Your task to perform on an android device: find which apps use the phone's location Image 0: 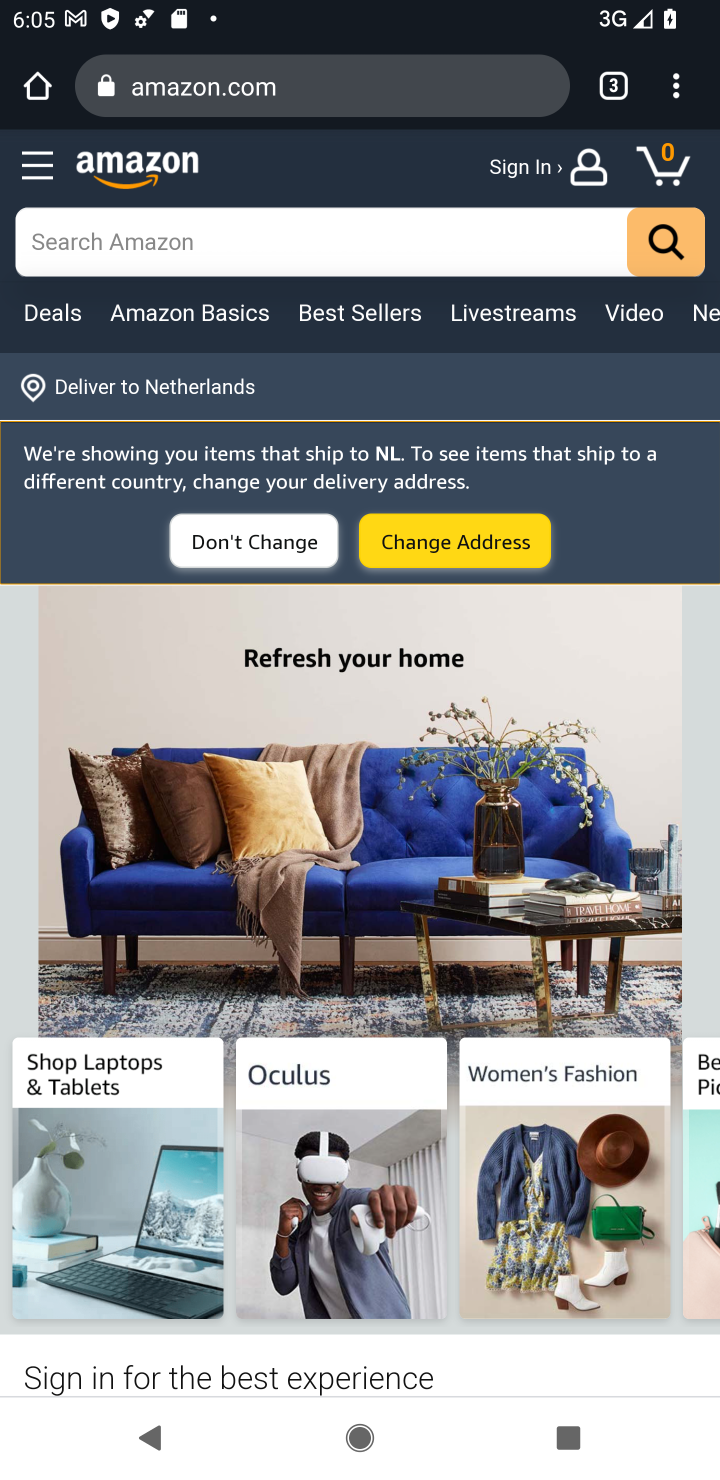
Step 0: press home button
Your task to perform on an android device: find which apps use the phone's location Image 1: 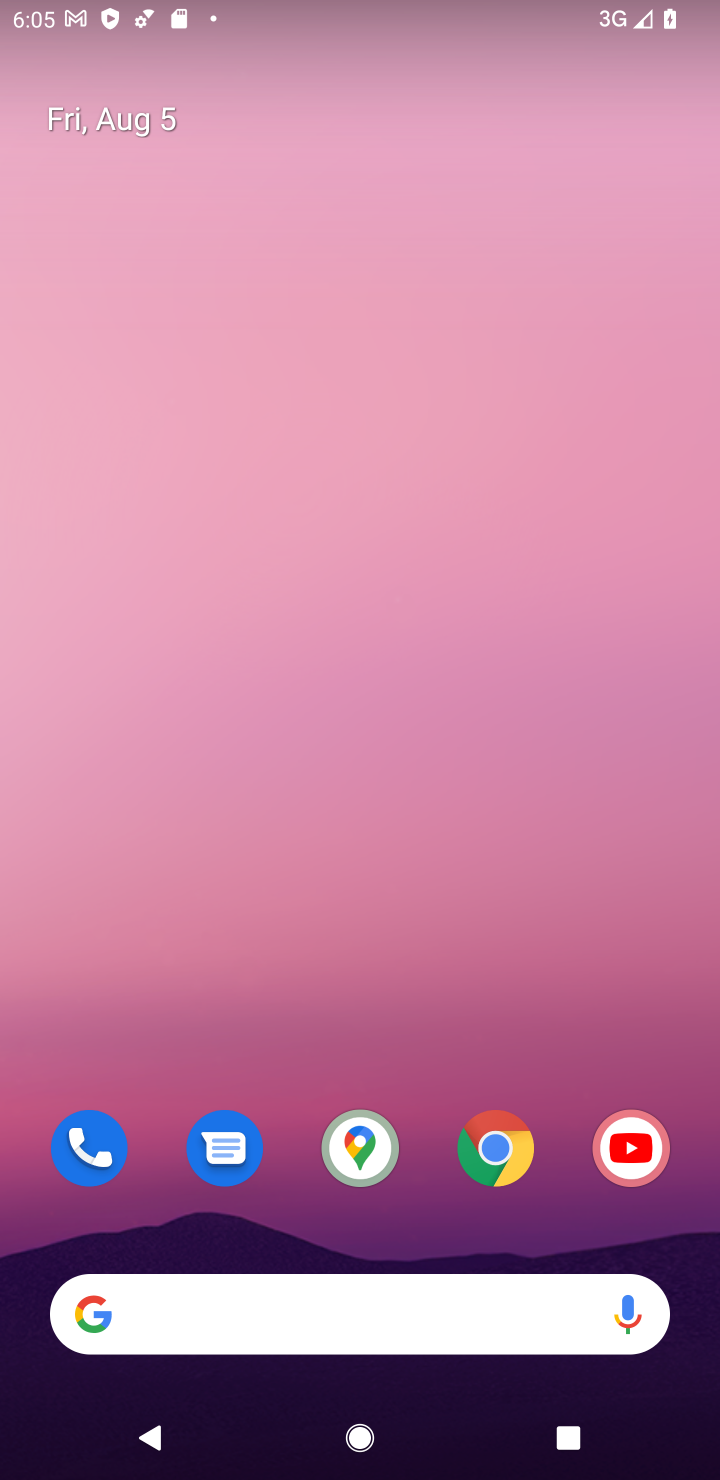
Step 1: drag from (391, 1028) to (433, 80)
Your task to perform on an android device: find which apps use the phone's location Image 2: 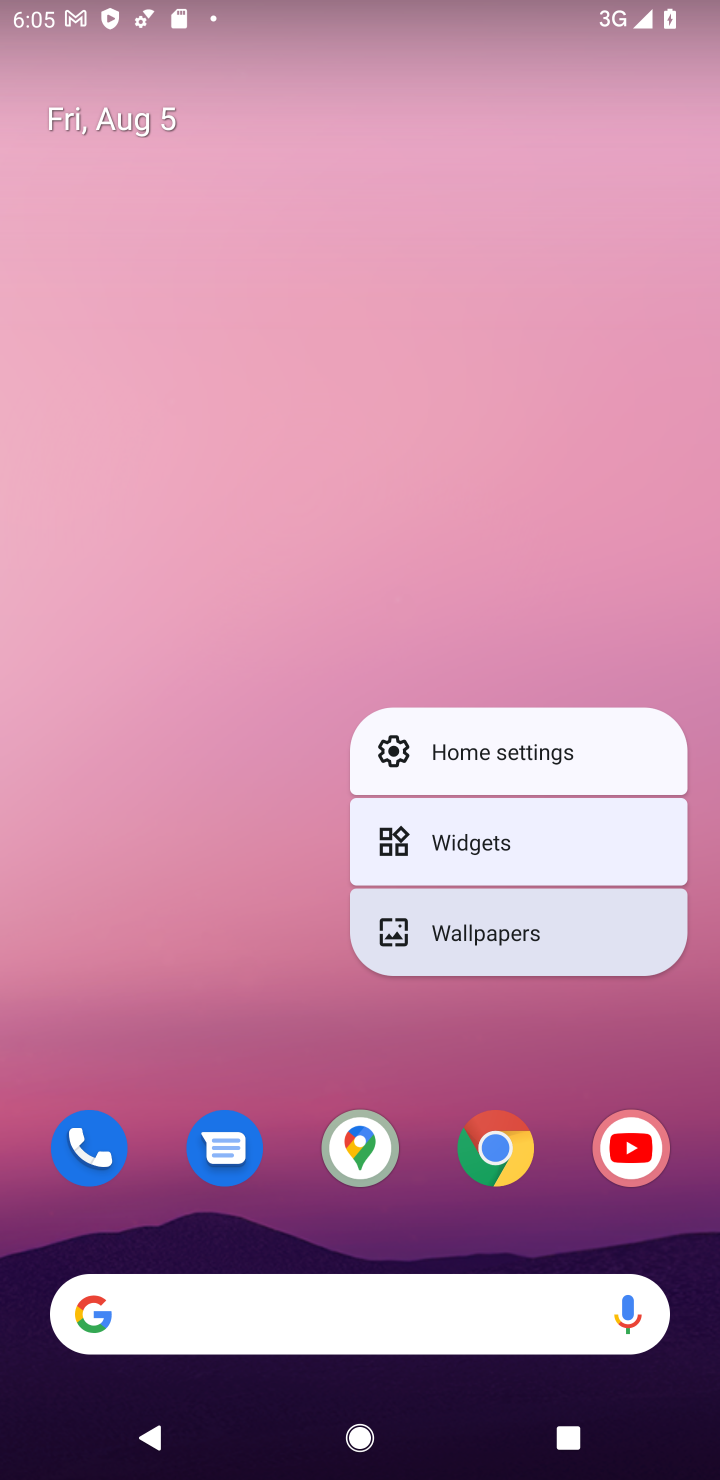
Step 2: click (238, 663)
Your task to perform on an android device: find which apps use the phone's location Image 3: 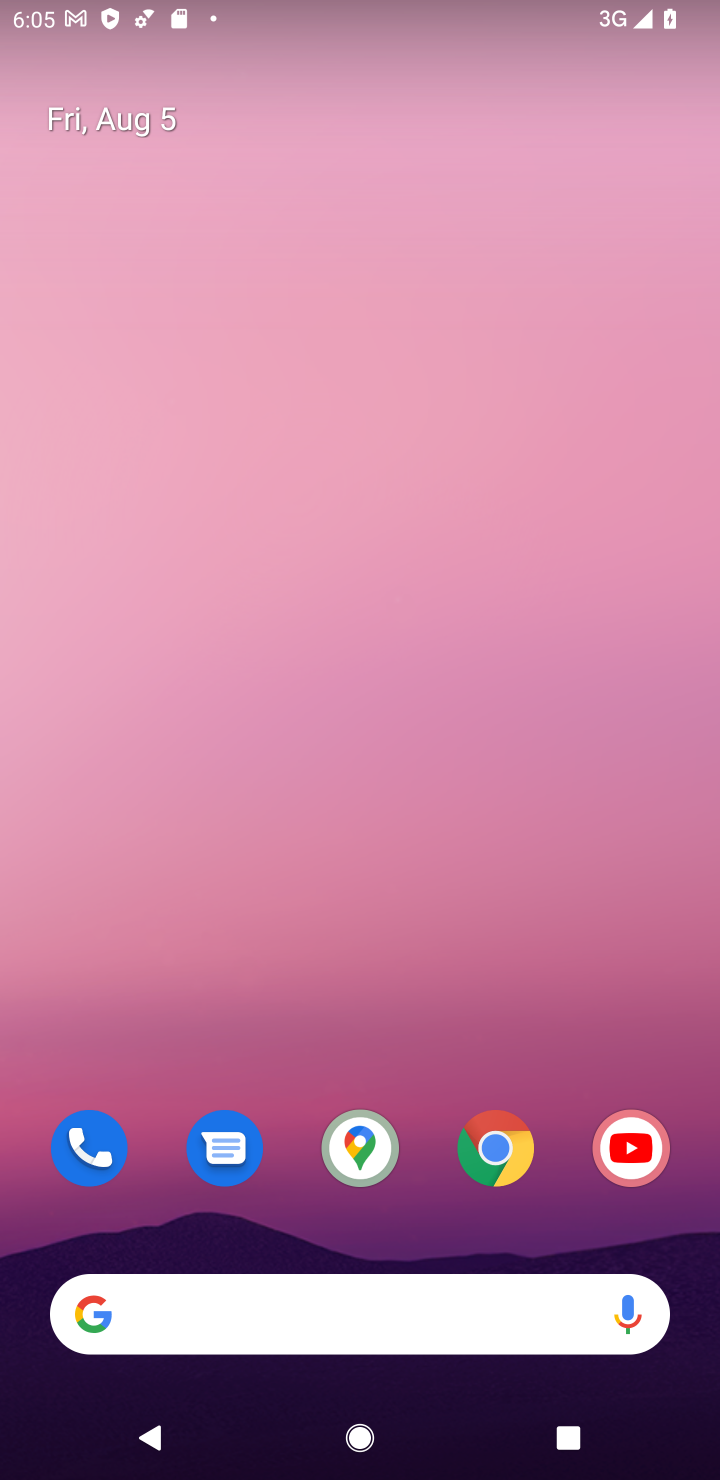
Step 3: drag from (402, 996) to (369, 53)
Your task to perform on an android device: find which apps use the phone's location Image 4: 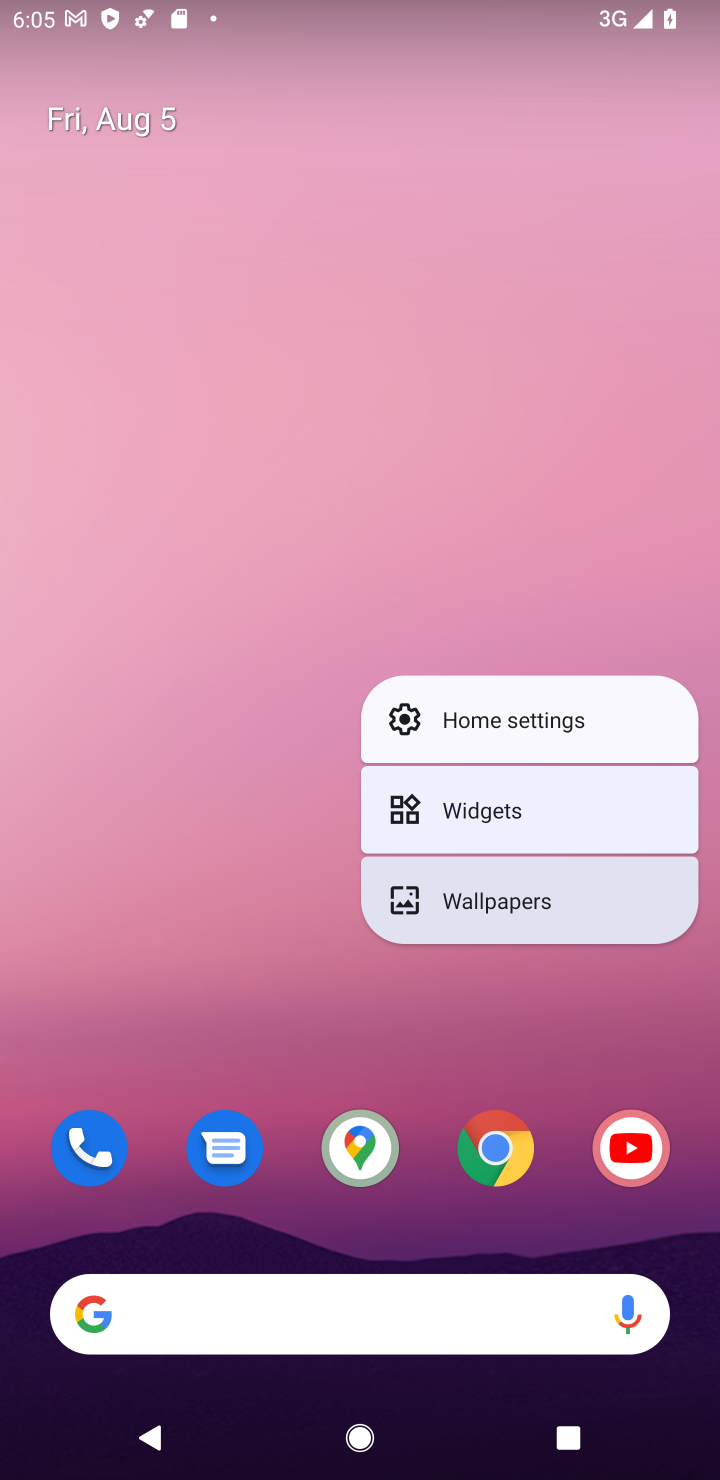
Step 4: click (106, 697)
Your task to perform on an android device: find which apps use the phone's location Image 5: 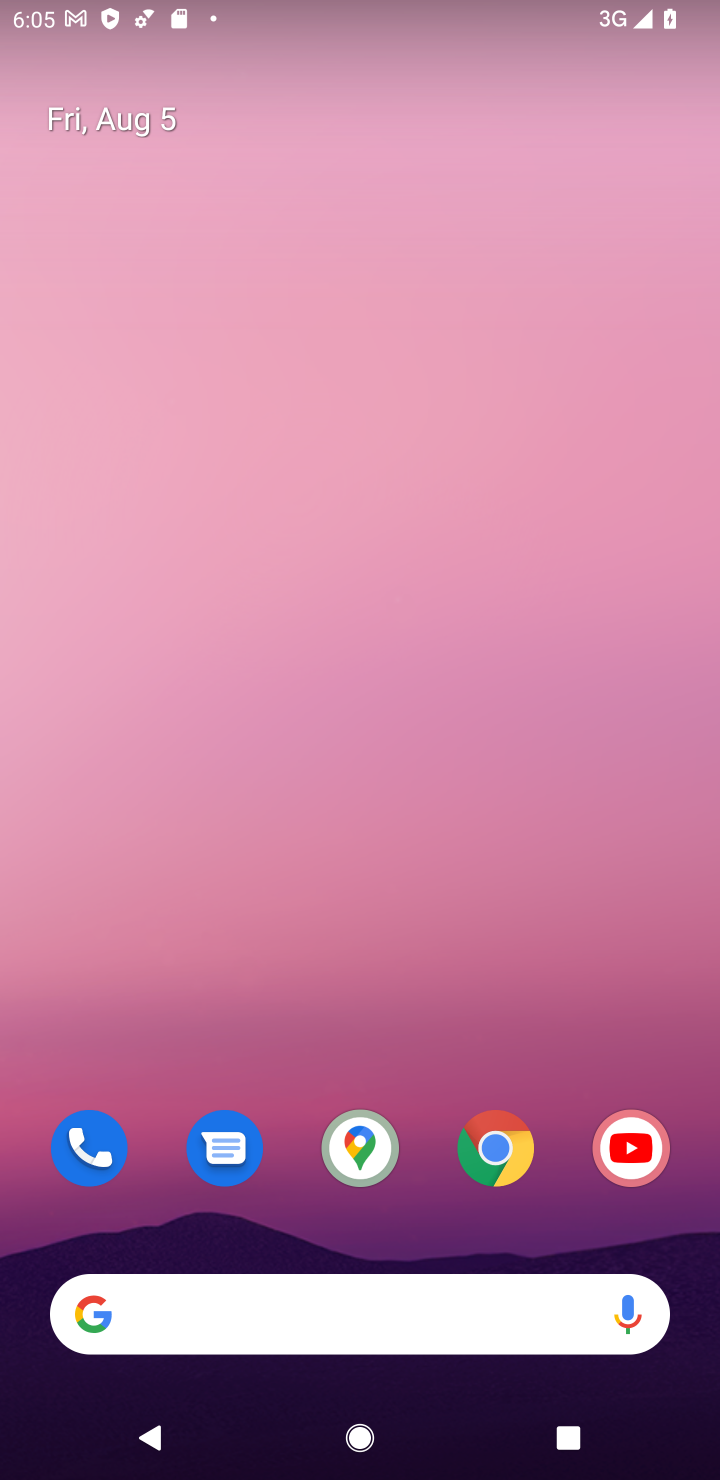
Step 5: drag from (536, 1011) to (344, 305)
Your task to perform on an android device: find which apps use the phone's location Image 6: 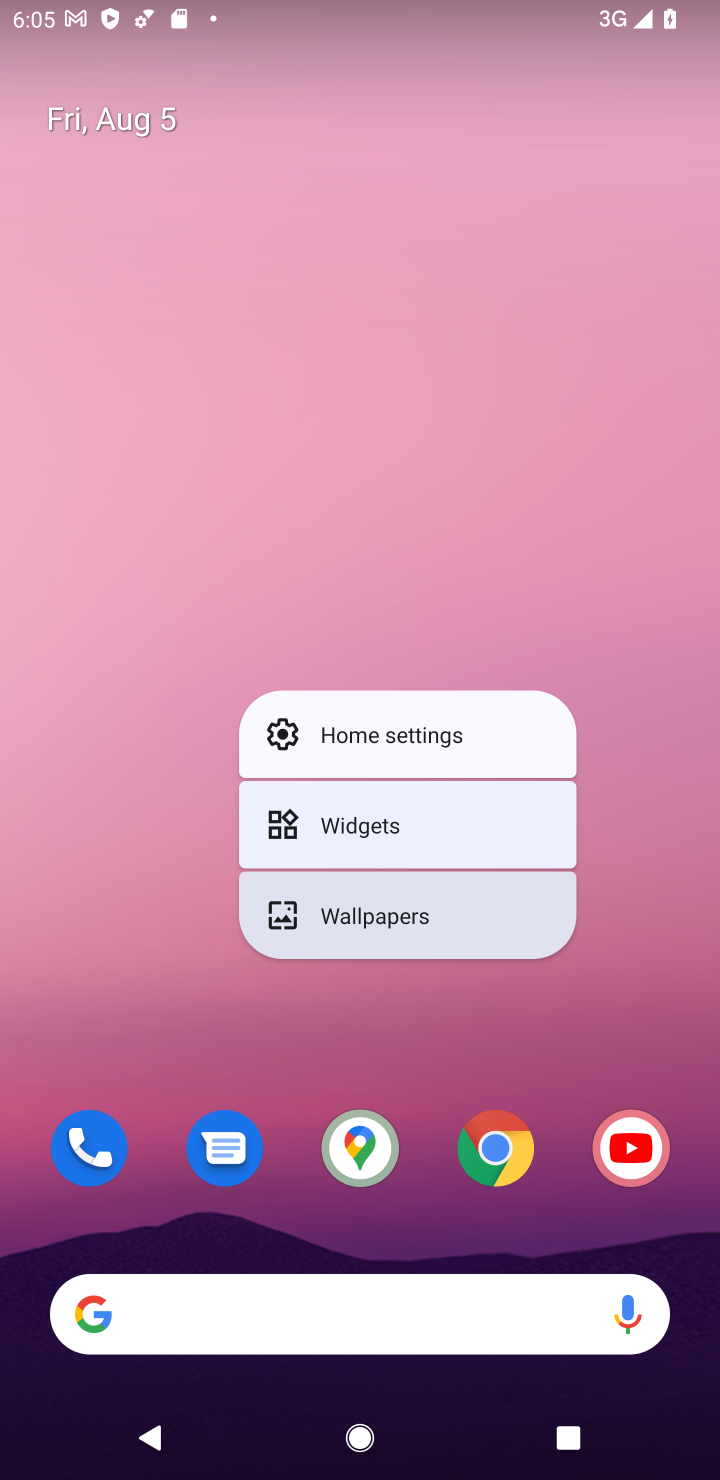
Step 6: click (344, 305)
Your task to perform on an android device: find which apps use the phone's location Image 7: 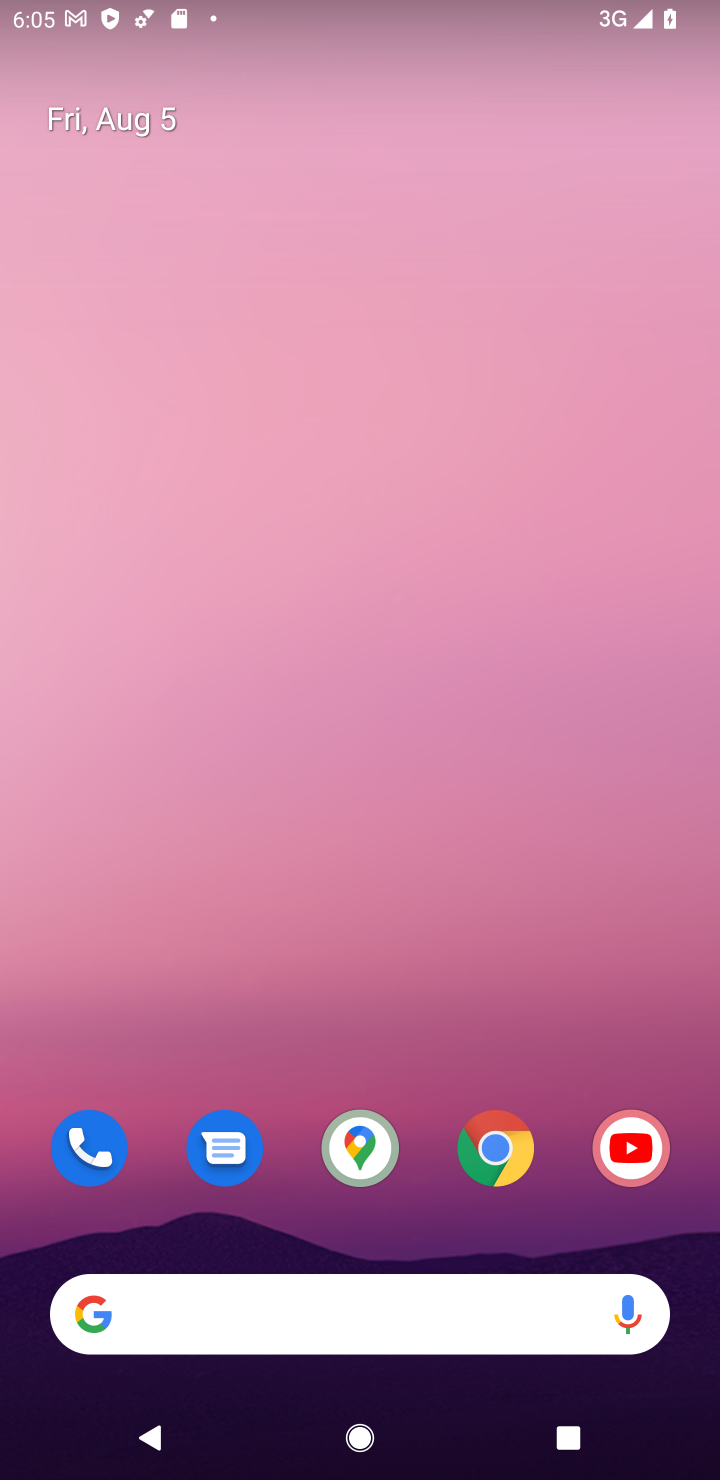
Step 7: drag from (281, 1017) to (217, 51)
Your task to perform on an android device: find which apps use the phone's location Image 8: 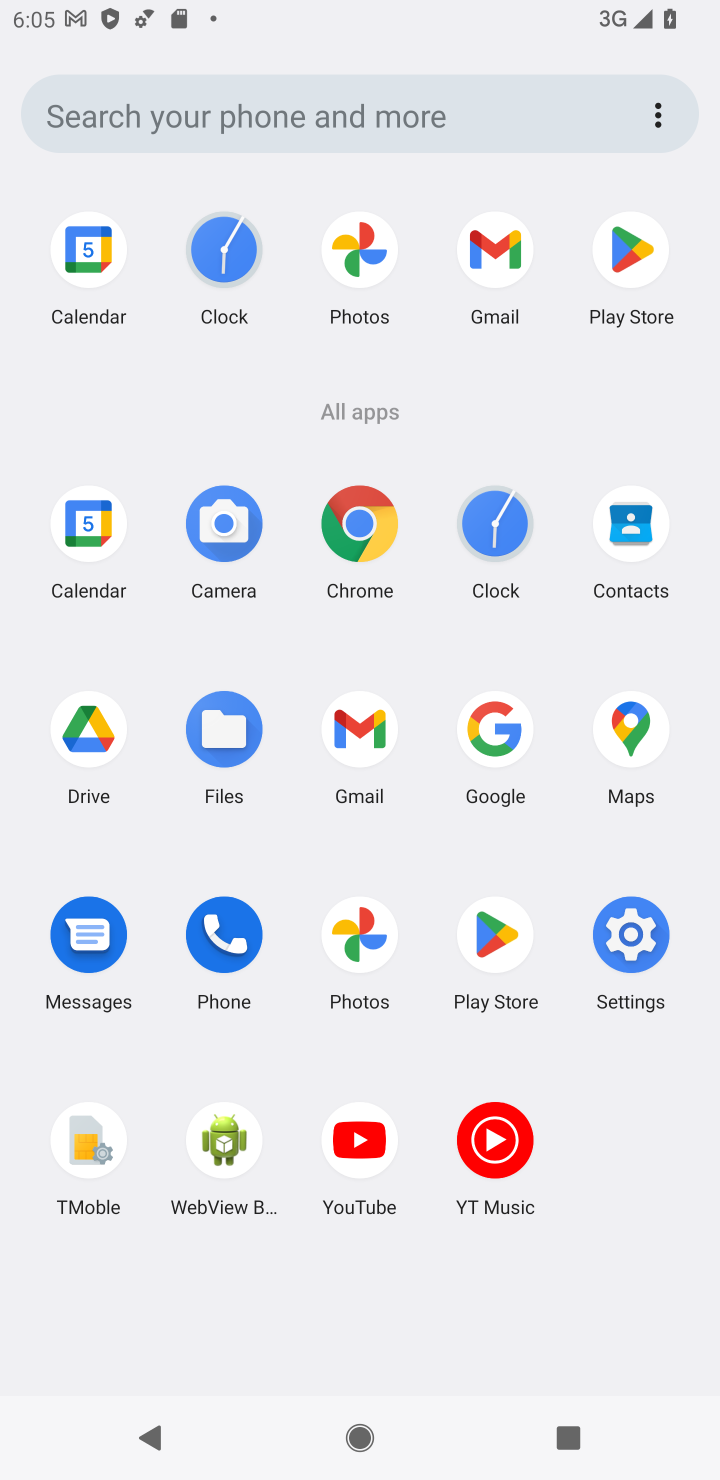
Step 8: click (635, 933)
Your task to perform on an android device: find which apps use the phone's location Image 9: 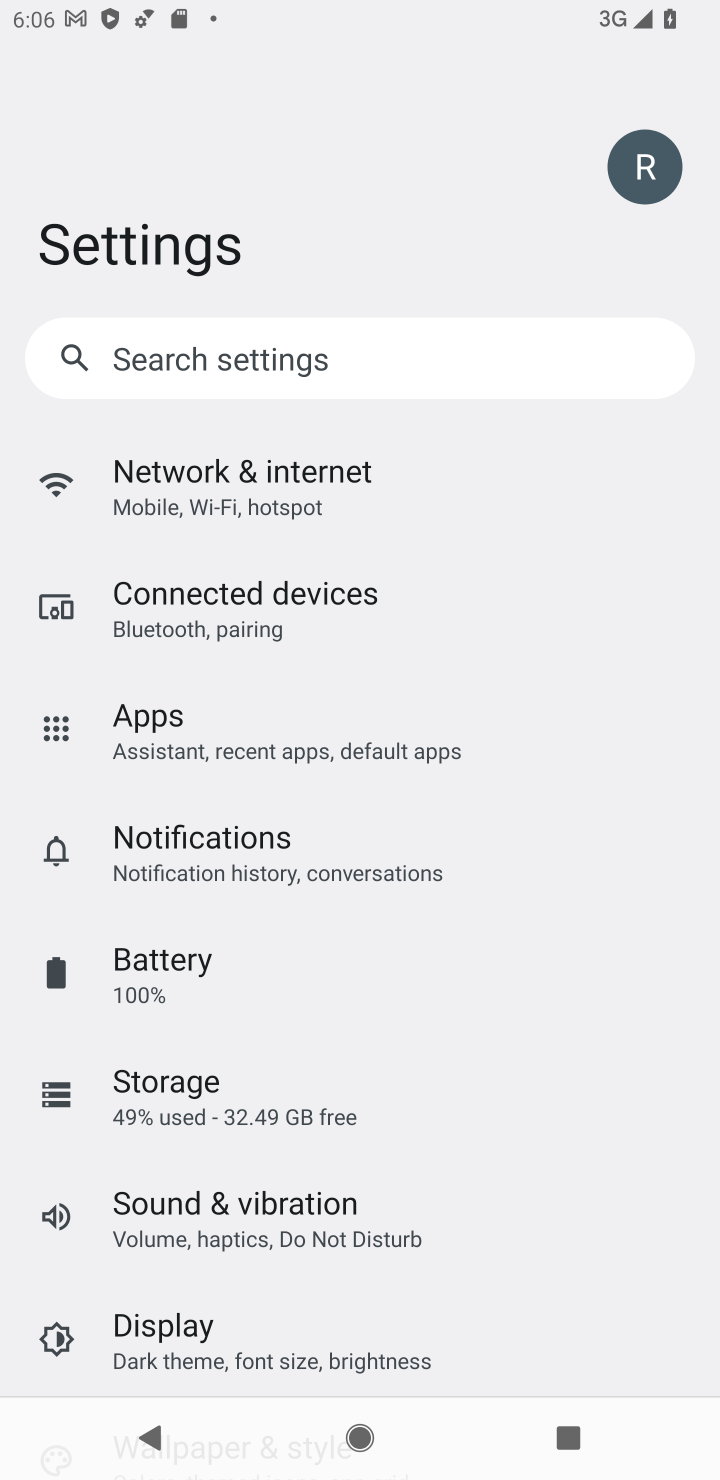
Step 9: drag from (481, 1189) to (342, 478)
Your task to perform on an android device: find which apps use the phone's location Image 10: 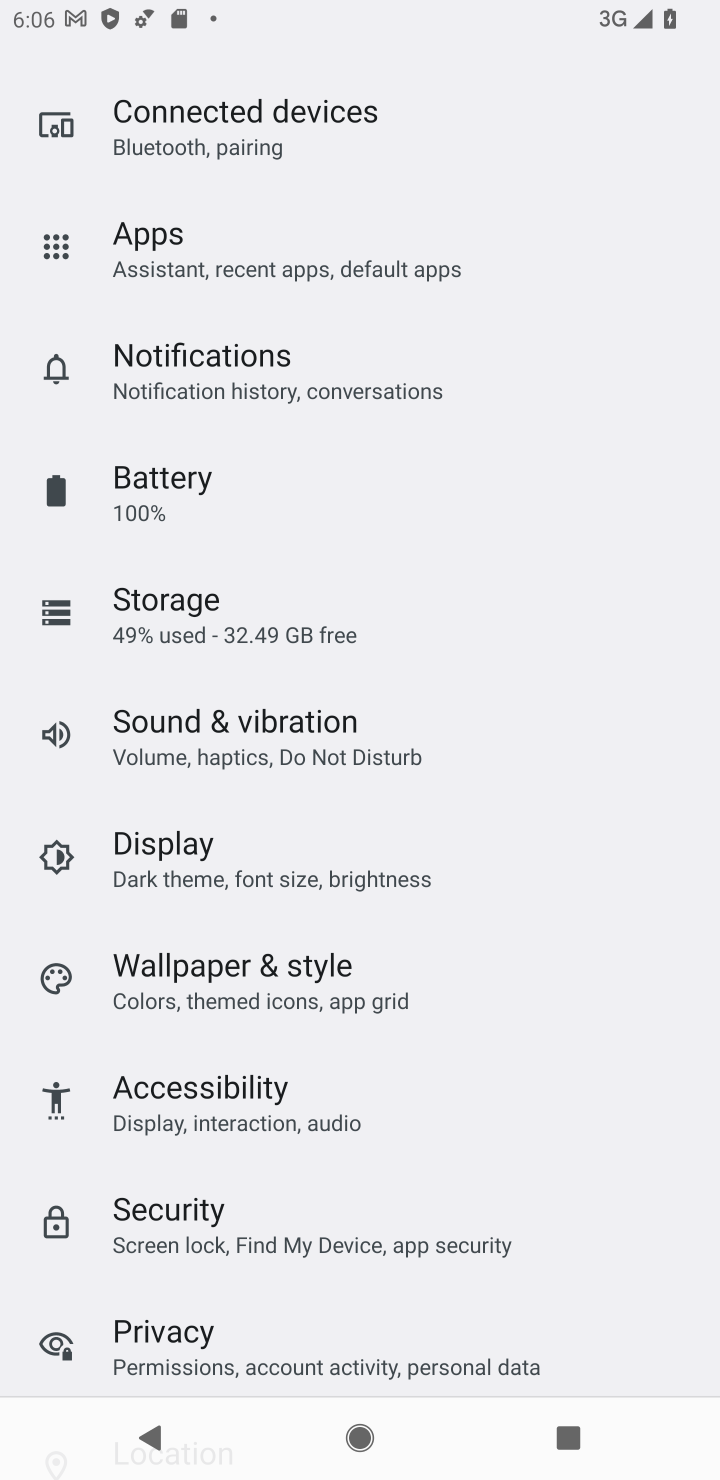
Step 10: drag from (338, 1178) to (396, 305)
Your task to perform on an android device: find which apps use the phone's location Image 11: 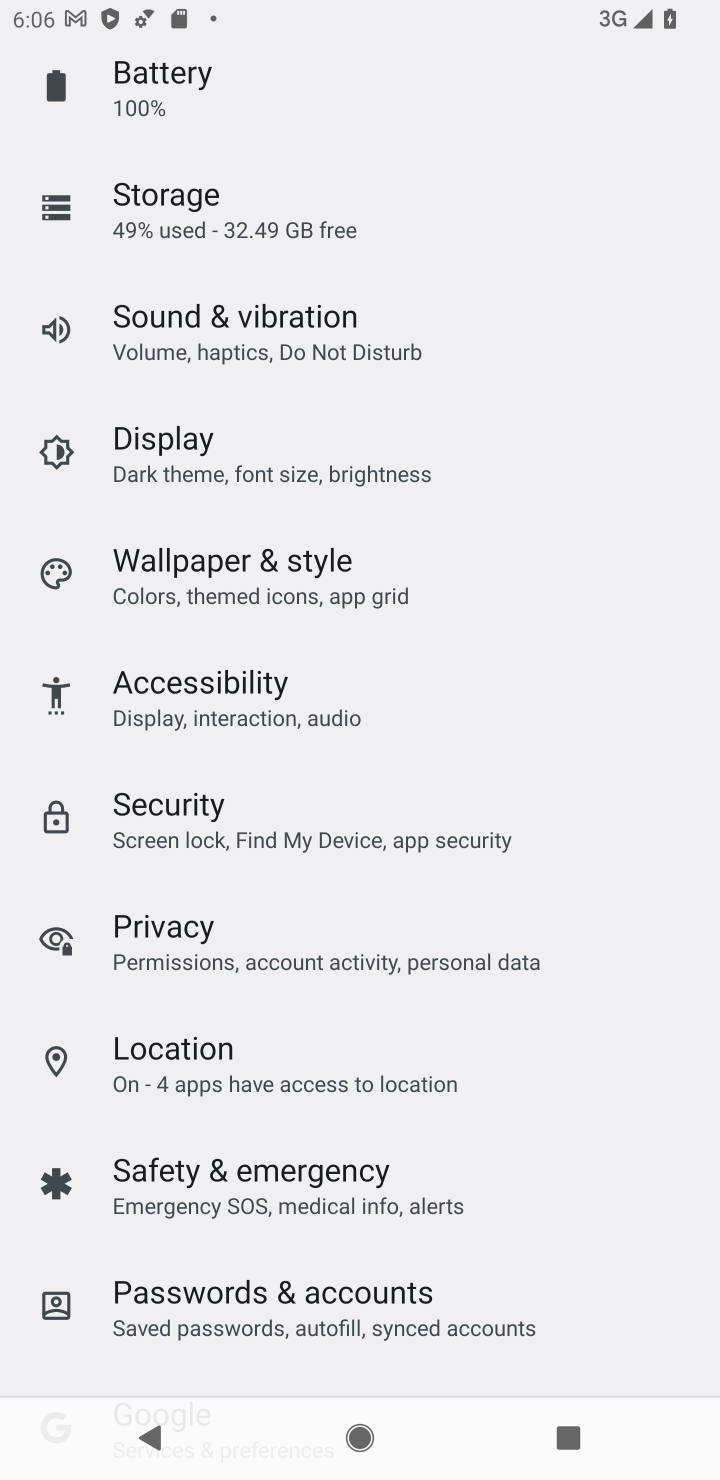
Step 11: click (193, 1048)
Your task to perform on an android device: find which apps use the phone's location Image 12: 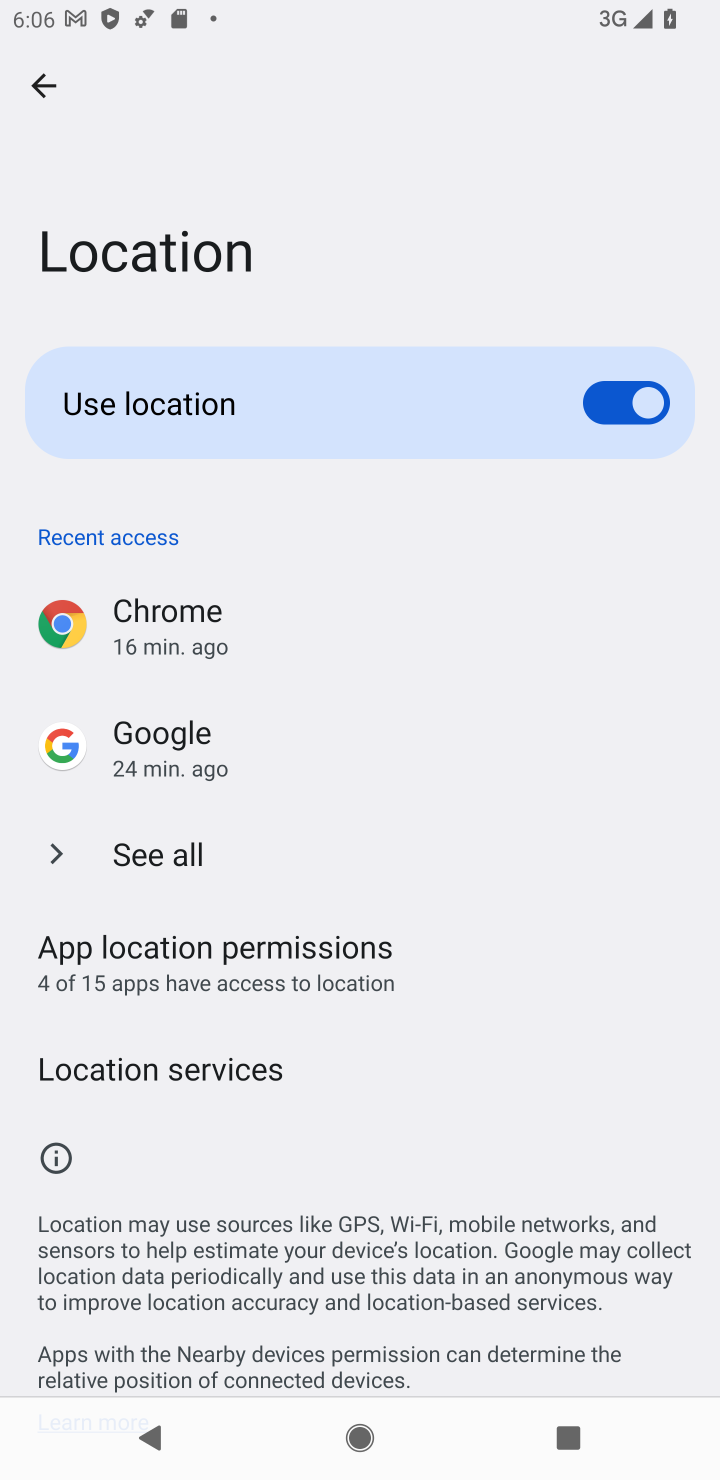
Step 12: click (188, 853)
Your task to perform on an android device: find which apps use the phone's location Image 13: 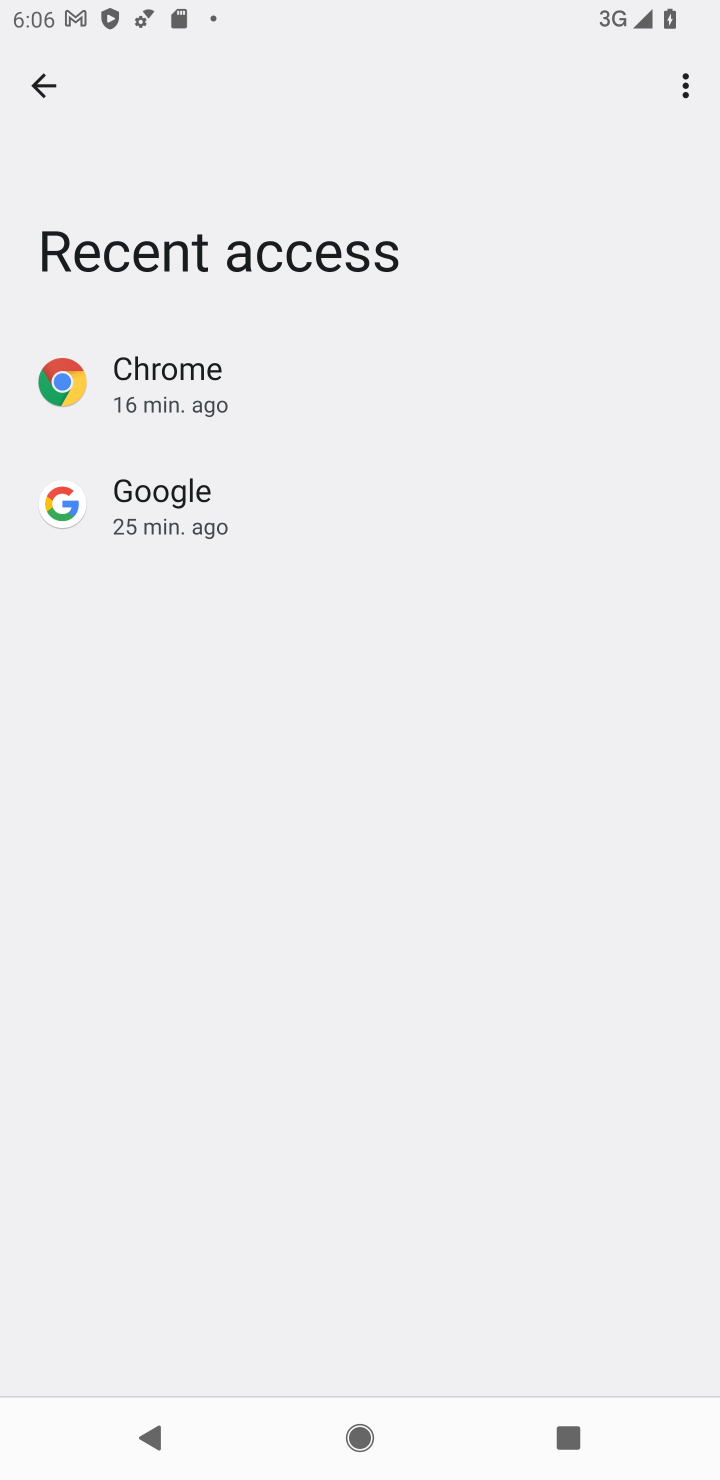
Step 13: task complete